Your task to perform on an android device: turn on translation in the chrome app Image 0: 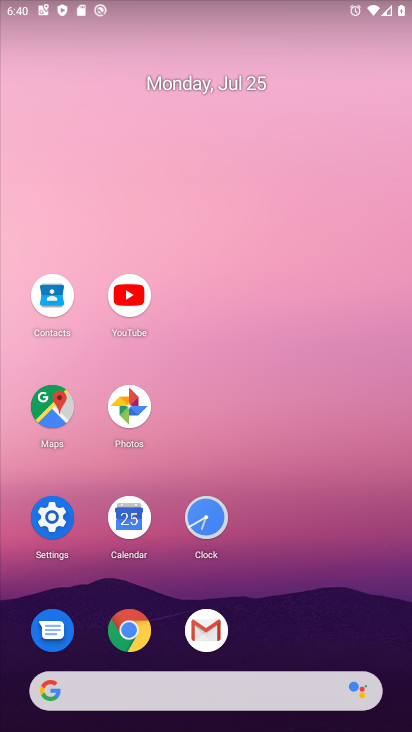
Step 0: click (125, 632)
Your task to perform on an android device: turn on translation in the chrome app Image 1: 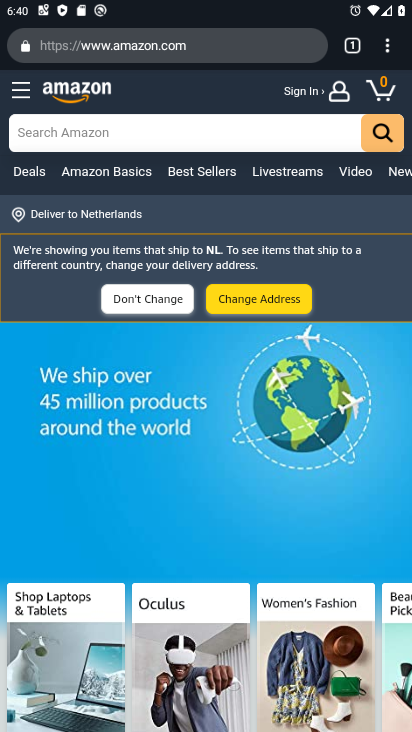
Step 1: click (389, 52)
Your task to perform on an android device: turn on translation in the chrome app Image 2: 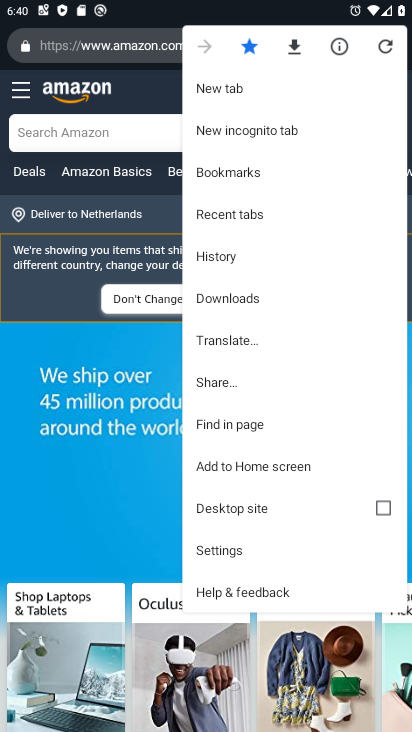
Step 2: click (222, 551)
Your task to perform on an android device: turn on translation in the chrome app Image 3: 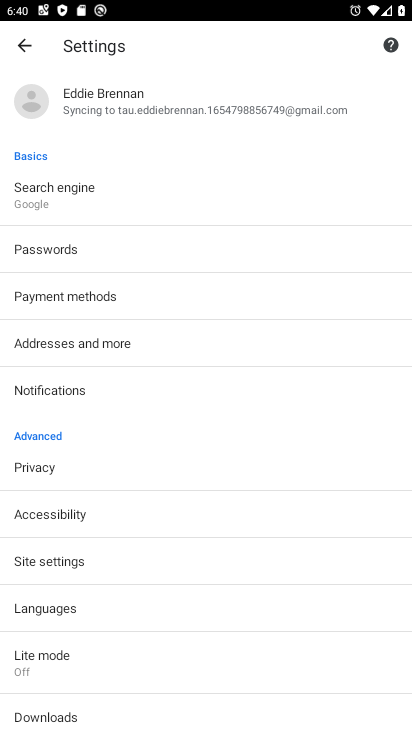
Step 3: click (59, 605)
Your task to perform on an android device: turn on translation in the chrome app Image 4: 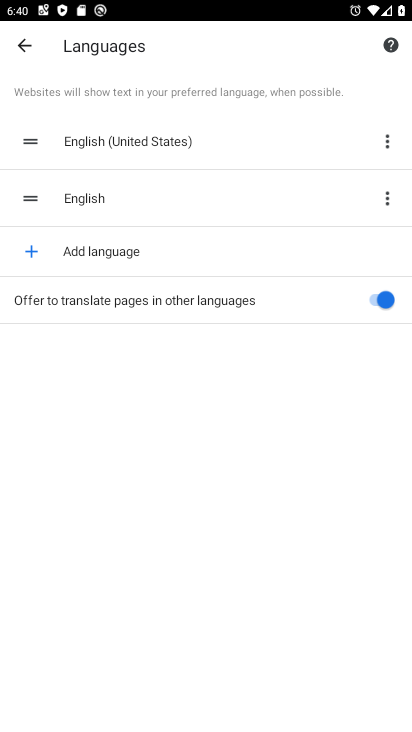
Step 4: task complete